Your task to perform on an android device: turn off notifications in google photos Image 0: 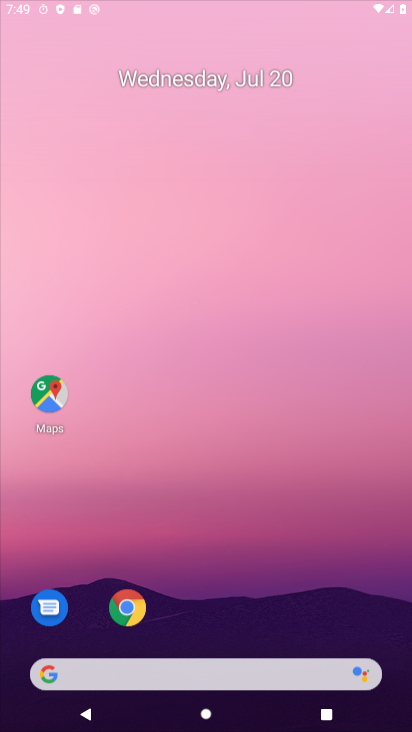
Step 0: click (192, 674)
Your task to perform on an android device: turn off notifications in google photos Image 1: 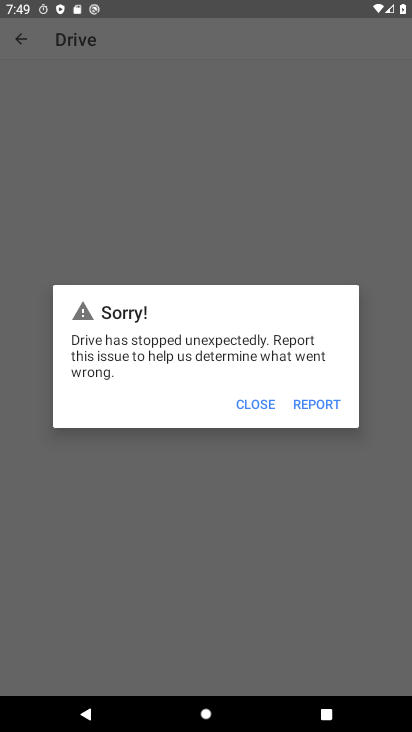
Step 1: click (264, 401)
Your task to perform on an android device: turn off notifications in google photos Image 2: 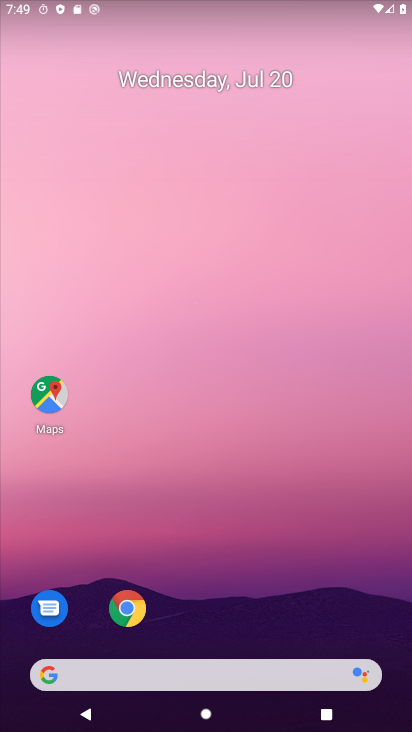
Step 2: click (213, 679)
Your task to perform on an android device: turn off notifications in google photos Image 3: 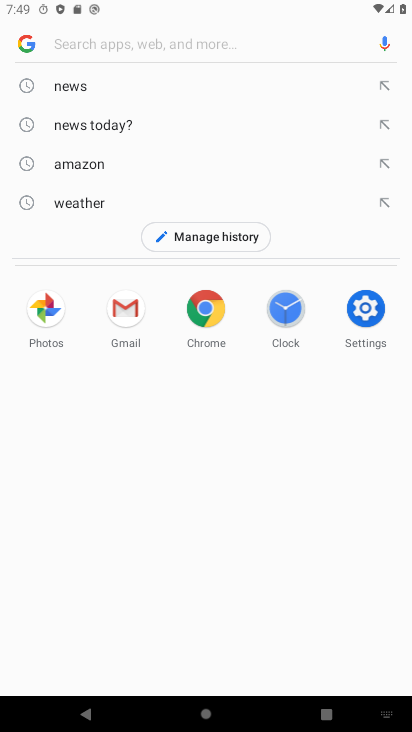
Step 3: press home button
Your task to perform on an android device: turn off notifications in google photos Image 4: 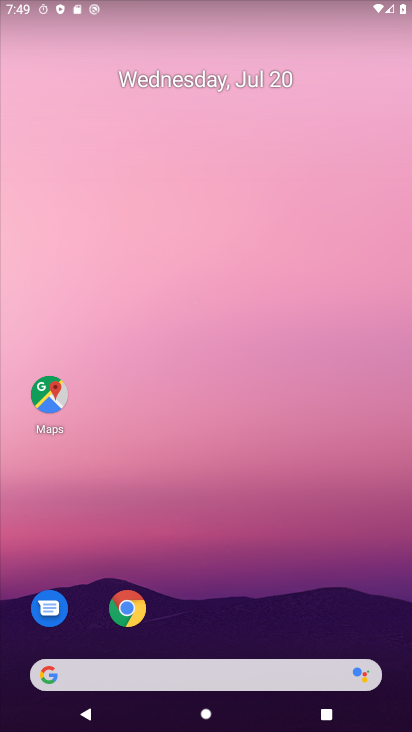
Step 4: drag from (207, 636) to (263, 33)
Your task to perform on an android device: turn off notifications in google photos Image 5: 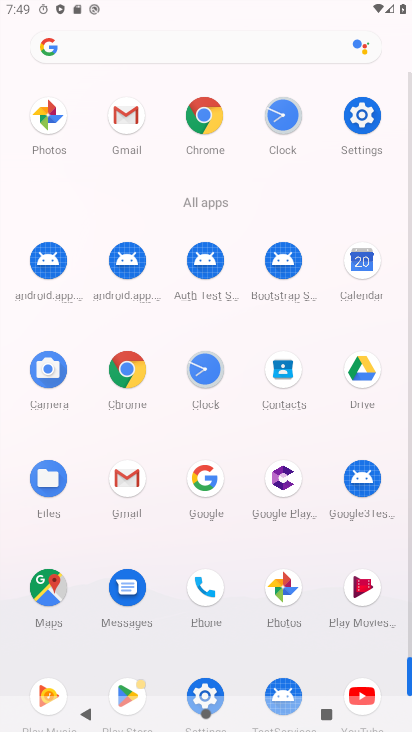
Step 5: click (278, 593)
Your task to perform on an android device: turn off notifications in google photos Image 6: 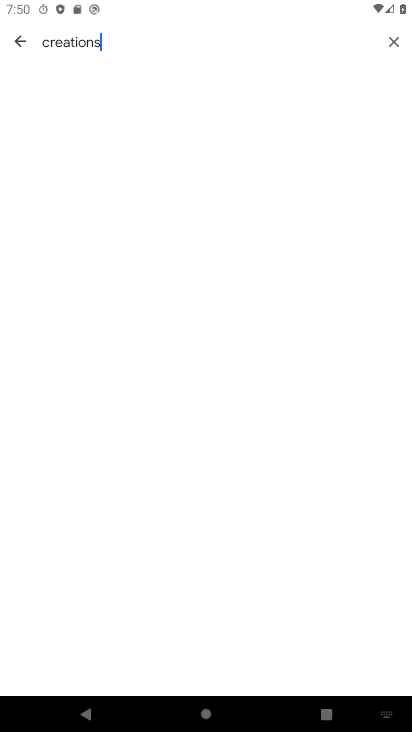
Step 6: click (20, 46)
Your task to perform on an android device: turn off notifications in google photos Image 7: 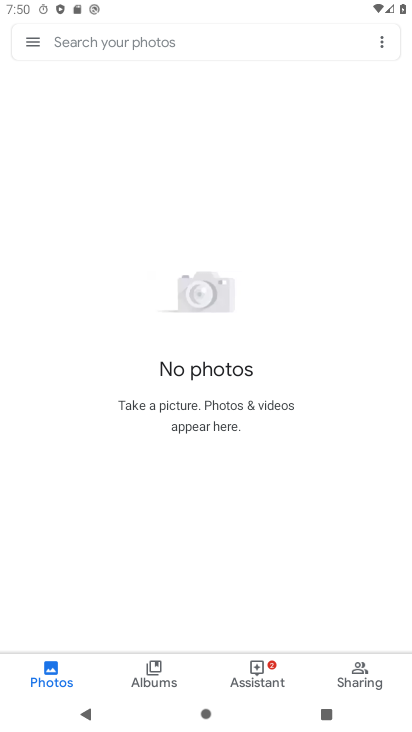
Step 7: click (30, 31)
Your task to perform on an android device: turn off notifications in google photos Image 8: 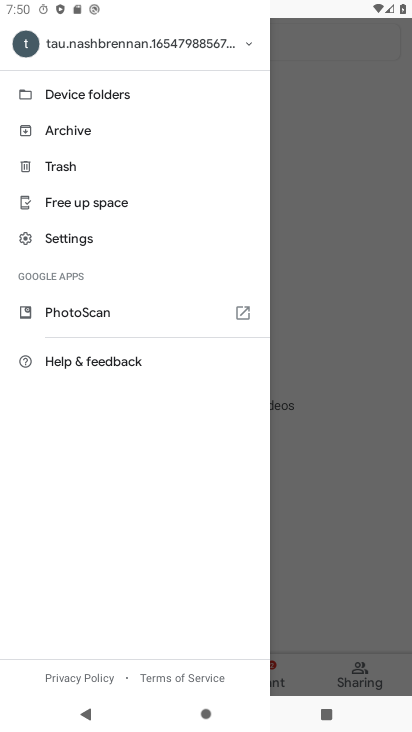
Step 8: click (82, 234)
Your task to perform on an android device: turn off notifications in google photos Image 9: 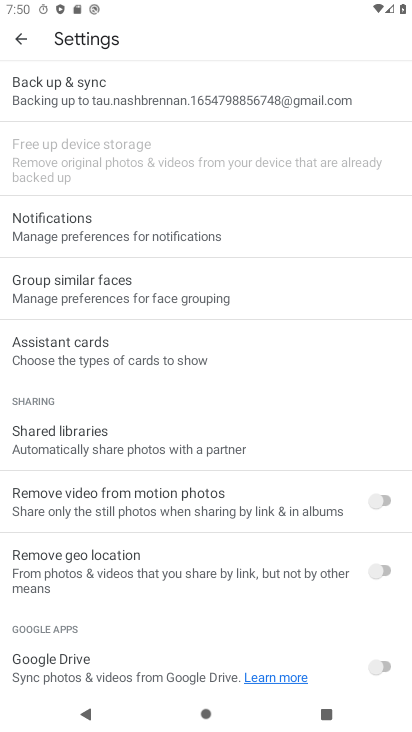
Step 9: click (108, 227)
Your task to perform on an android device: turn off notifications in google photos Image 10: 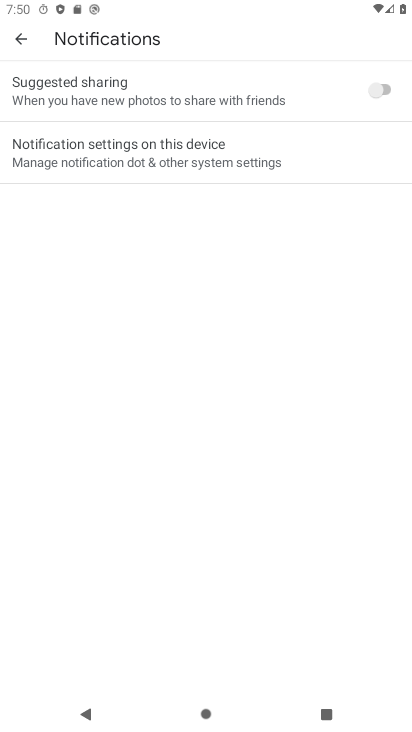
Step 10: click (127, 148)
Your task to perform on an android device: turn off notifications in google photos Image 11: 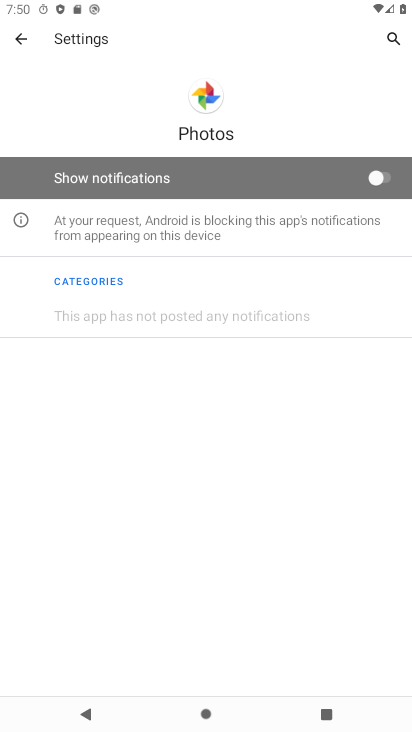
Step 11: task complete